Your task to perform on an android device: What is the recent news? Image 0: 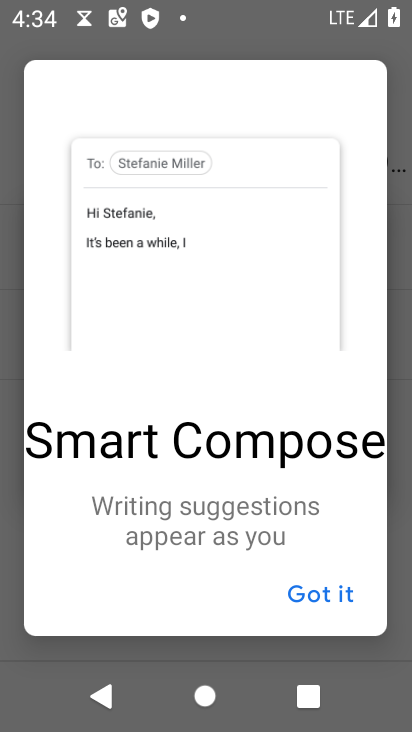
Step 0: press back button
Your task to perform on an android device: What is the recent news? Image 1: 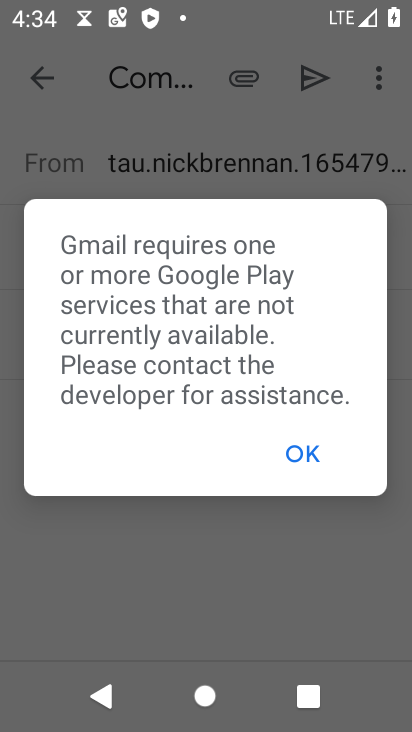
Step 1: click (318, 453)
Your task to perform on an android device: What is the recent news? Image 2: 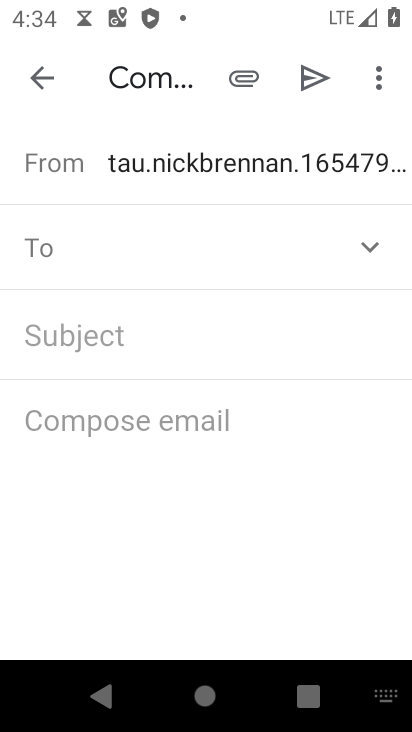
Step 2: press home button
Your task to perform on an android device: What is the recent news? Image 3: 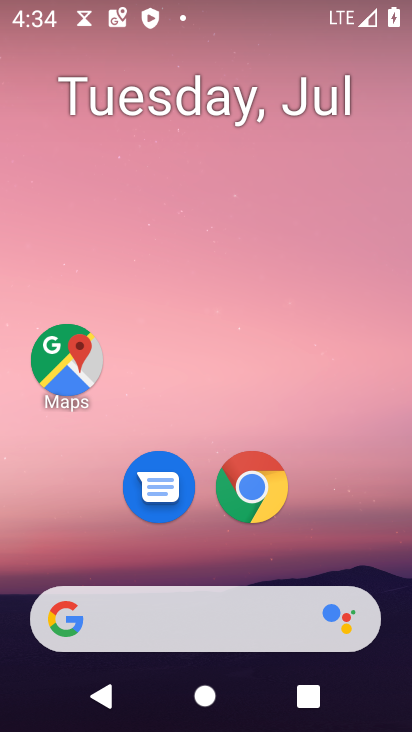
Step 3: click (176, 635)
Your task to perform on an android device: What is the recent news? Image 4: 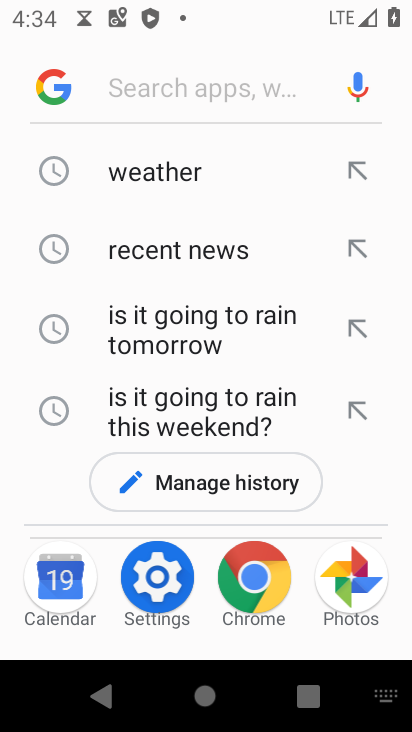
Step 4: click (178, 251)
Your task to perform on an android device: What is the recent news? Image 5: 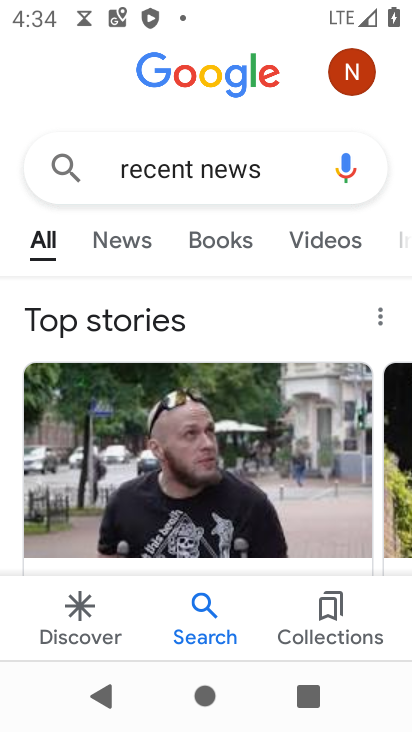
Step 5: task complete